Your task to perform on an android device: Search for a new bike on Walmart. Image 0: 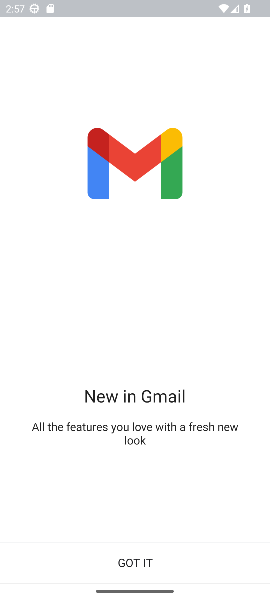
Step 0: press home button
Your task to perform on an android device: Search for a new bike on Walmart. Image 1: 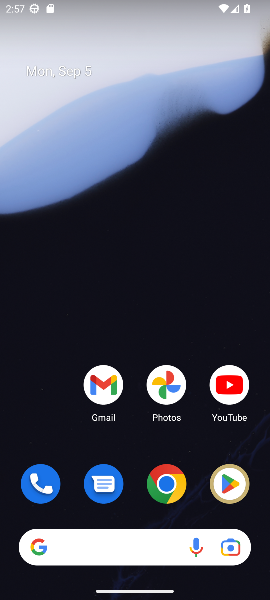
Step 1: click (169, 483)
Your task to perform on an android device: Search for a new bike on Walmart. Image 2: 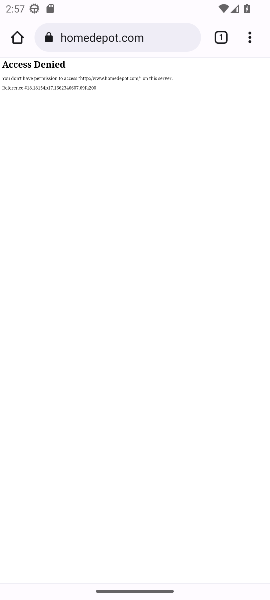
Step 2: click (161, 34)
Your task to perform on an android device: Search for a new bike on Walmart. Image 3: 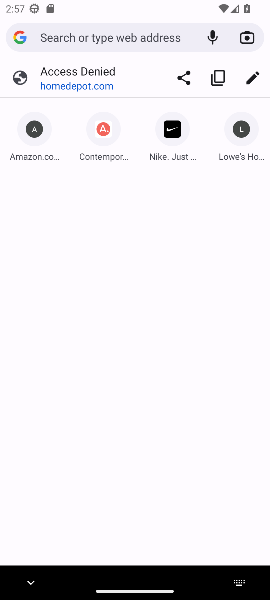
Step 3: type "Walmart"
Your task to perform on an android device: Search for a new bike on Walmart. Image 4: 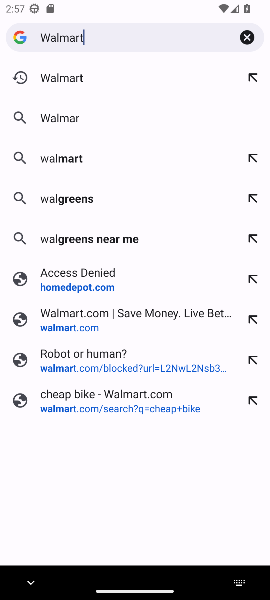
Step 4: press enter
Your task to perform on an android device: Search for a new bike on Walmart. Image 5: 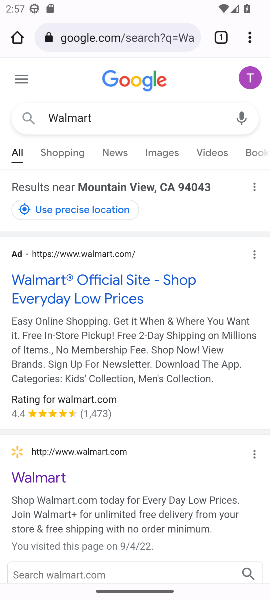
Step 5: click (29, 481)
Your task to perform on an android device: Search for a new bike on Walmart. Image 6: 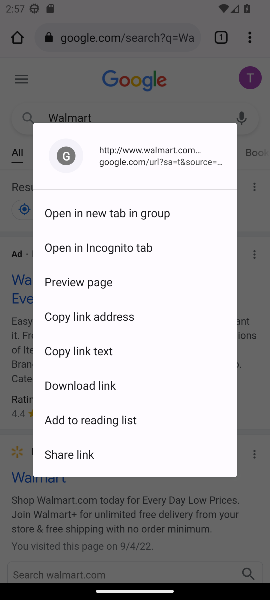
Step 6: click (258, 513)
Your task to perform on an android device: Search for a new bike on Walmart. Image 7: 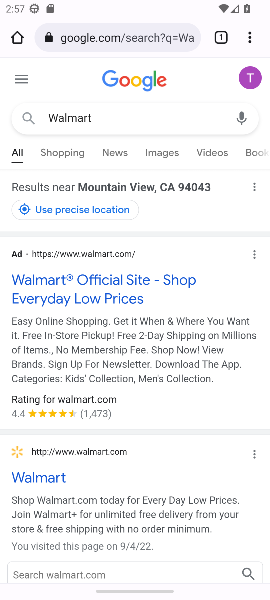
Step 7: click (27, 473)
Your task to perform on an android device: Search for a new bike on Walmart. Image 8: 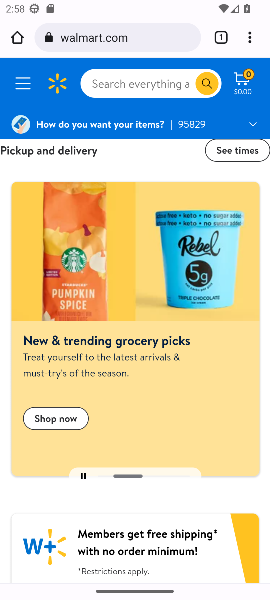
Step 8: click (162, 93)
Your task to perform on an android device: Search for a new bike on Walmart. Image 9: 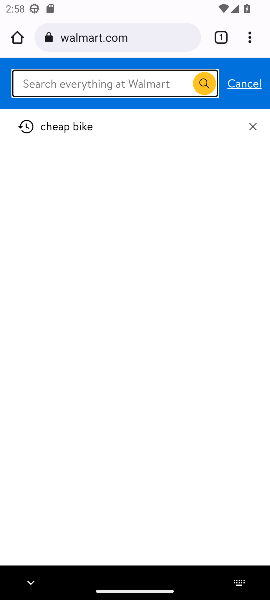
Step 9: type "new bike"
Your task to perform on an android device: Search for a new bike on Walmart. Image 10: 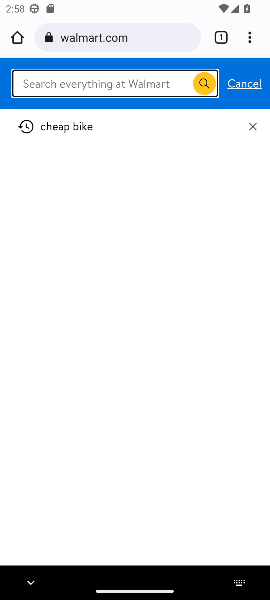
Step 10: press enter
Your task to perform on an android device: Search for a new bike on Walmart. Image 11: 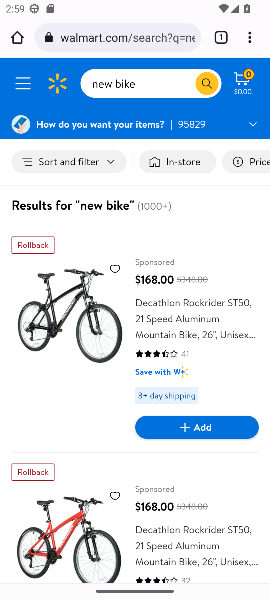
Step 11: task complete